Your task to perform on an android device: Open Chrome and go to the settings page Image 0: 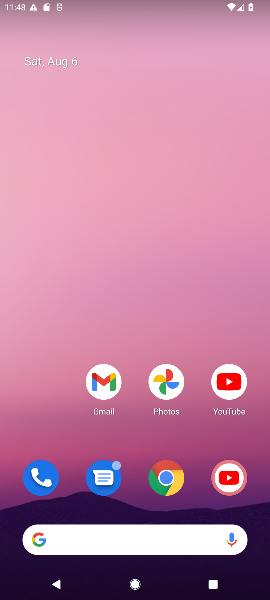
Step 0: click (154, 483)
Your task to perform on an android device: Open Chrome and go to the settings page Image 1: 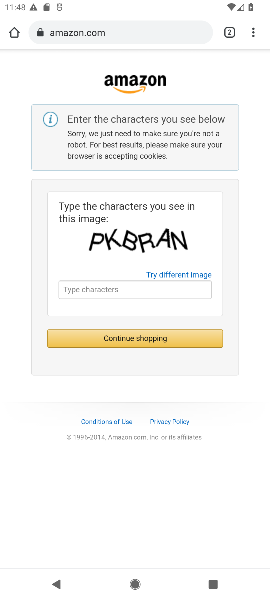
Step 1: click (253, 35)
Your task to perform on an android device: Open Chrome and go to the settings page Image 2: 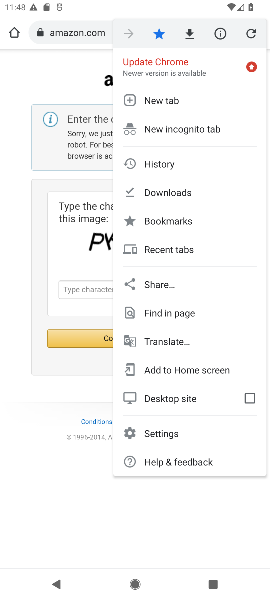
Step 2: click (167, 430)
Your task to perform on an android device: Open Chrome and go to the settings page Image 3: 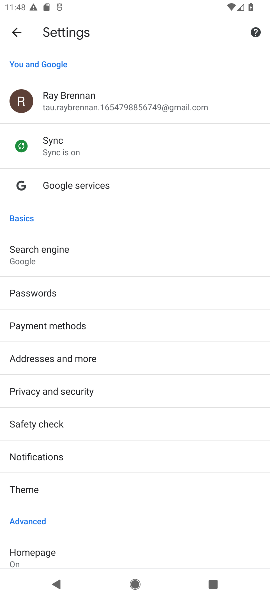
Step 3: task complete